Your task to perform on an android device: check battery use Image 0: 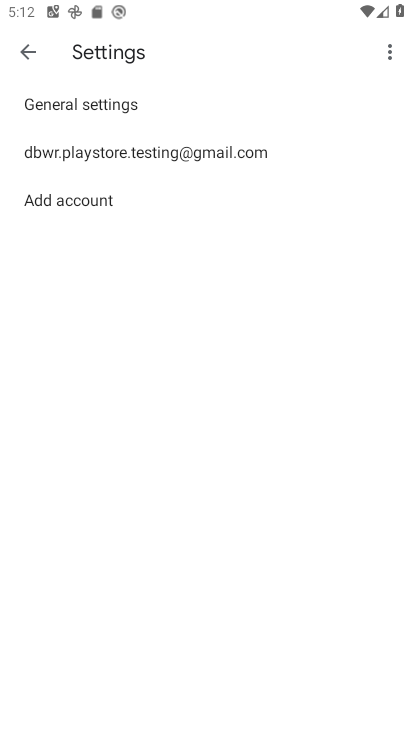
Step 0: press home button
Your task to perform on an android device: check battery use Image 1: 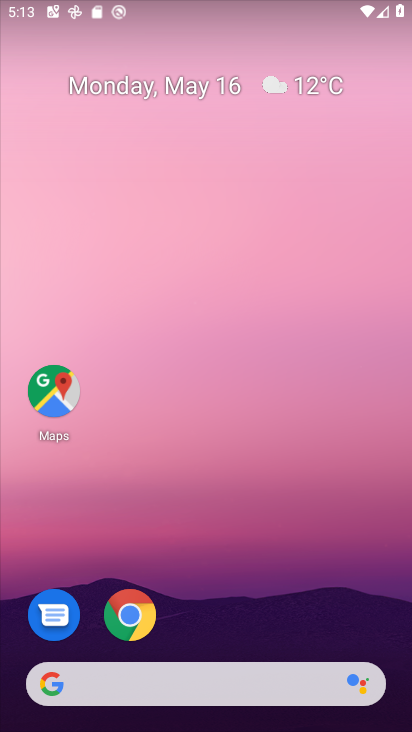
Step 1: drag from (209, 607) to (195, 73)
Your task to perform on an android device: check battery use Image 2: 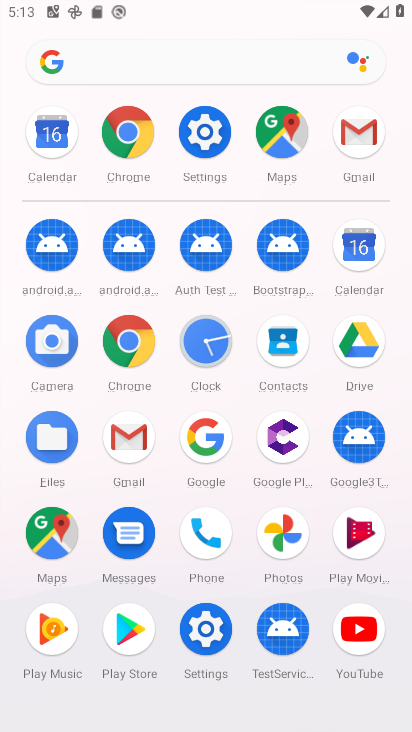
Step 2: click (202, 135)
Your task to perform on an android device: check battery use Image 3: 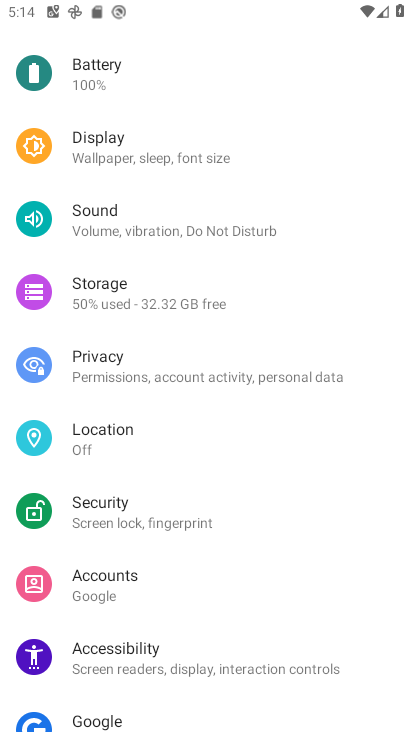
Step 3: click (104, 82)
Your task to perform on an android device: check battery use Image 4: 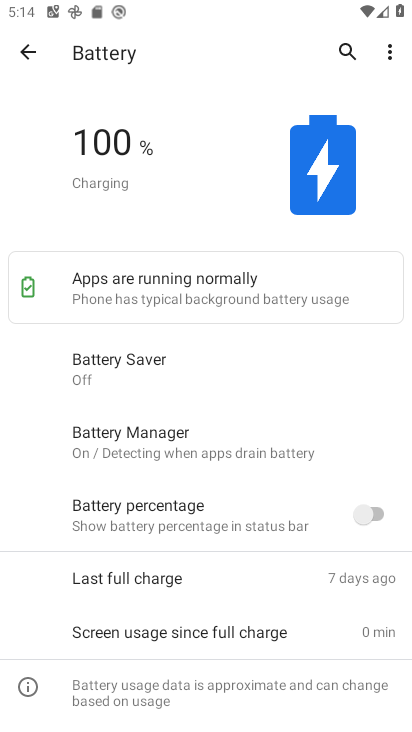
Step 4: task complete